Your task to perform on an android device: remove spam from my inbox in the gmail app Image 0: 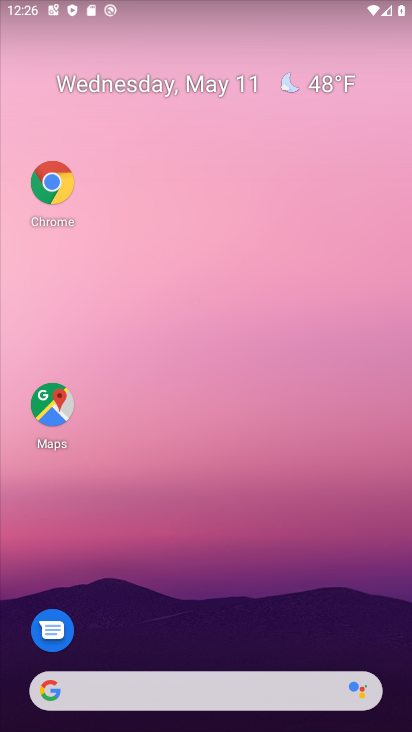
Step 0: drag from (267, 668) to (136, 6)
Your task to perform on an android device: remove spam from my inbox in the gmail app Image 1: 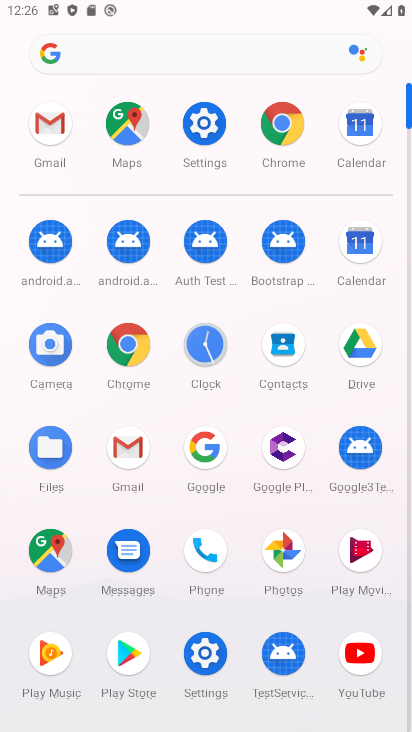
Step 1: click (123, 443)
Your task to perform on an android device: remove spam from my inbox in the gmail app Image 2: 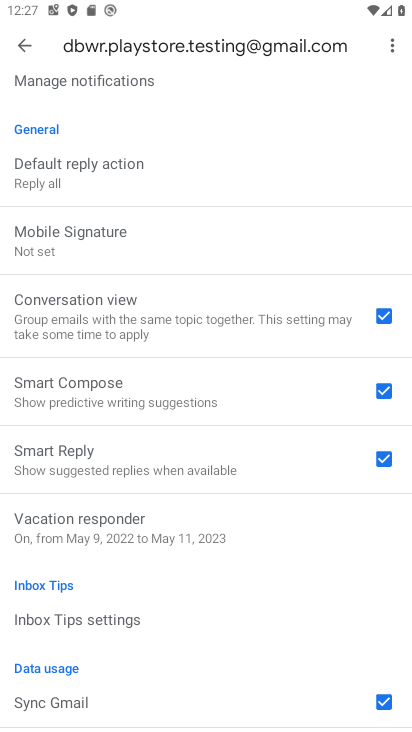
Step 2: click (22, 47)
Your task to perform on an android device: remove spam from my inbox in the gmail app Image 3: 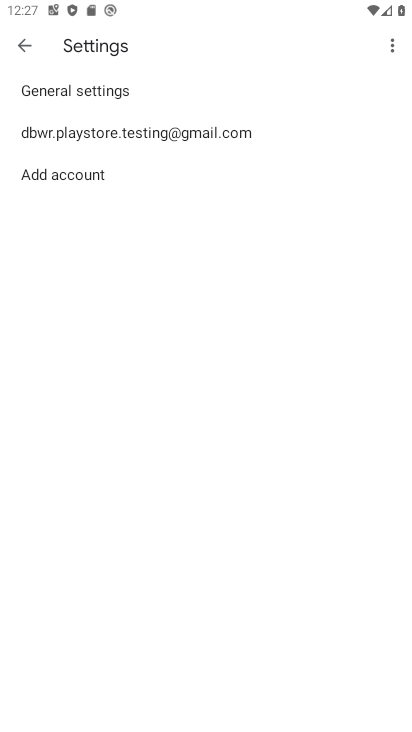
Step 3: click (23, 43)
Your task to perform on an android device: remove spam from my inbox in the gmail app Image 4: 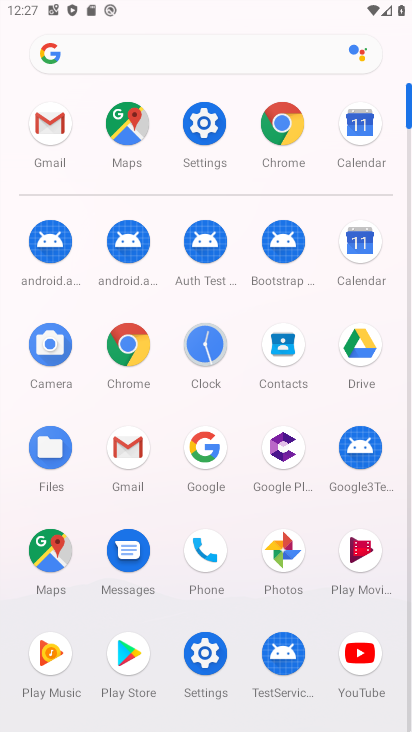
Step 4: click (115, 453)
Your task to perform on an android device: remove spam from my inbox in the gmail app Image 5: 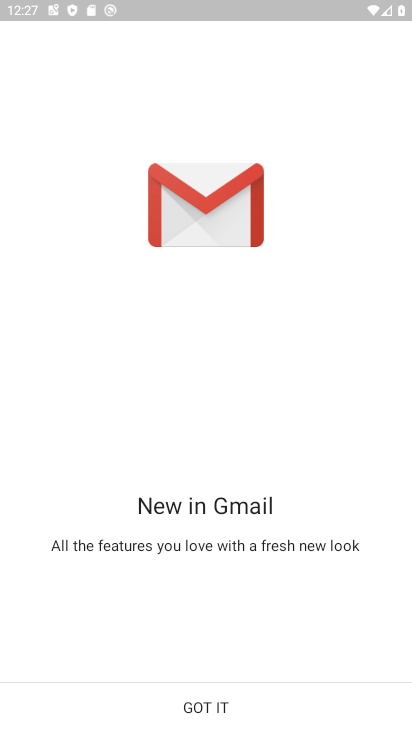
Step 5: click (215, 720)
Your task to perform on an android device: remove spam from my inbox in the gmail app Image 6: 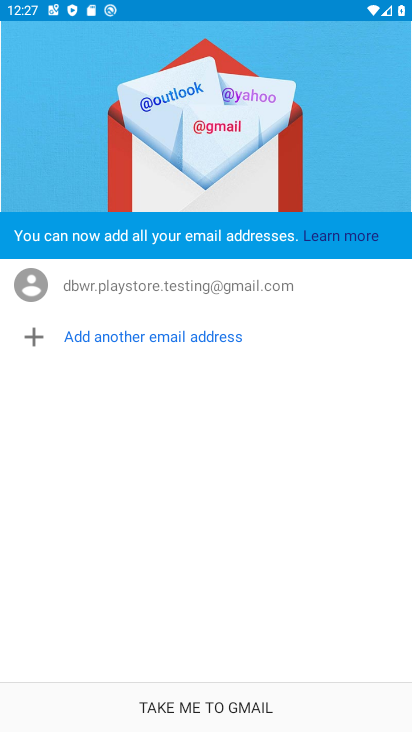
Step 6: click (213, 711)
Your task to perform on an android device: remove spam from my inbox in the gmail app Image 7: 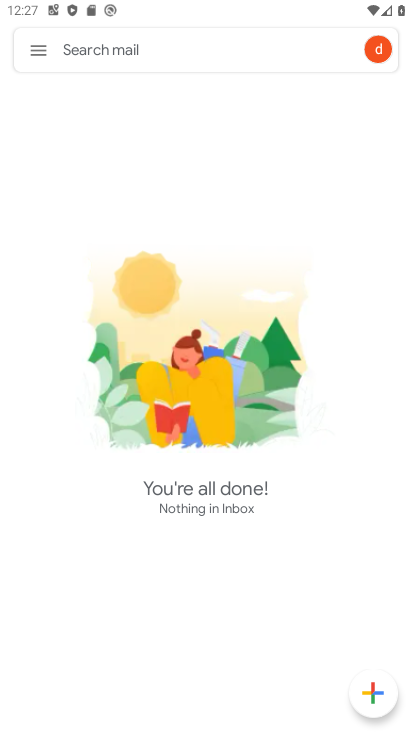
Step 7: click (24, 45)
Your task to perform on an android device: remove spam from my inbox in the gmail app Image 8: 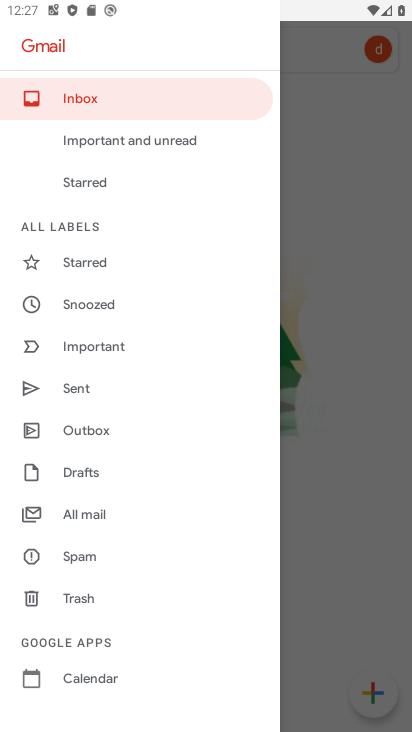
Step 8: click (93, 555)
Your task to perform on an android device: remove spam from my inbox in the gmail app Image 9: 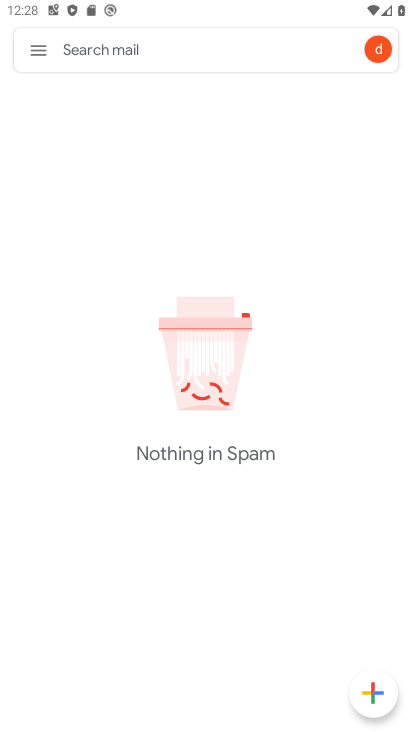
Step 9: press home button
Your task to perform on an android device: remove spam from my inbox in the gmail app Image 10: 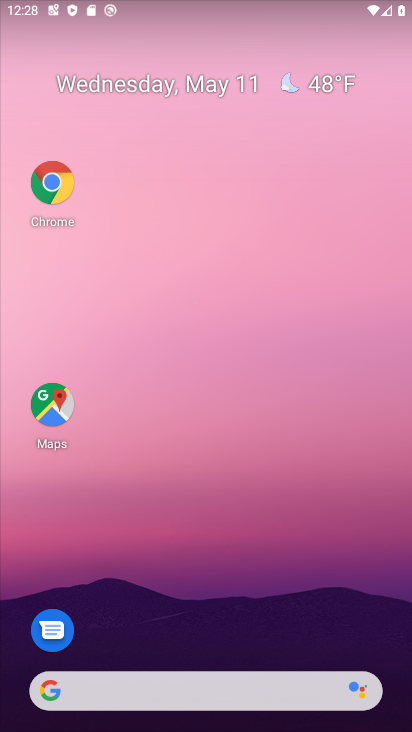
Step 10: drag from (190, 669) to (23, 95)
Your task to perform on an android device: remove spam from my inbox in the gmail app Image 11: 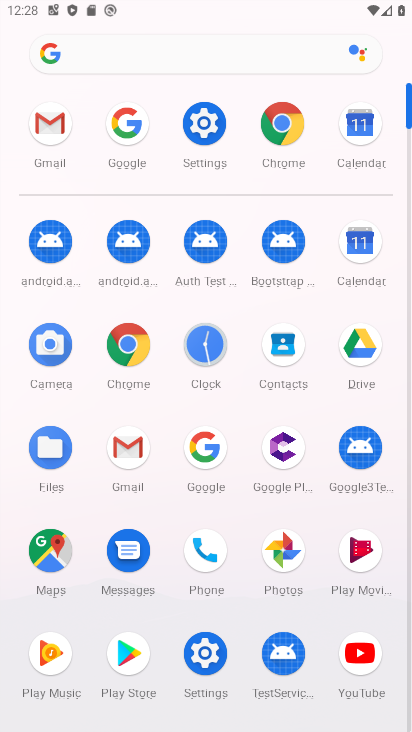
Step 11: click (135, 448)
Your task to perform on an android device: remove spam from my inbox in the gmail app Image 12: 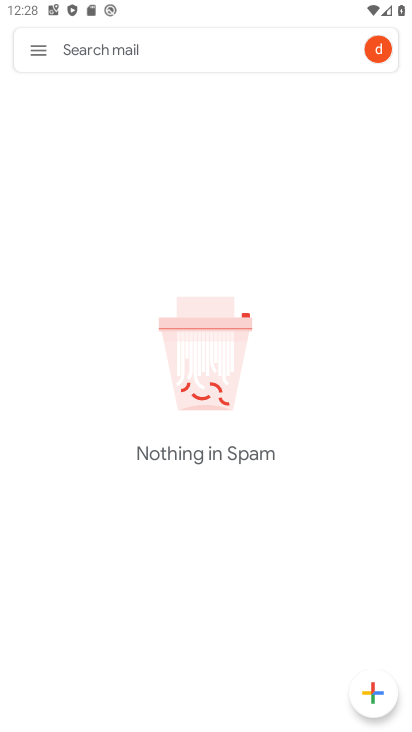
Step 12: click (42, 39)
Your task to perform on an android device: remove spam from my inbox in the gmail app Image 13: 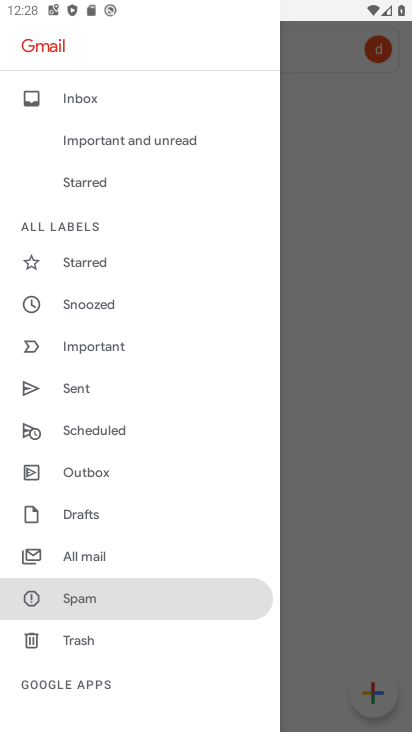
Step 13: click (92, 594)
Your task to perform on an android device: remove spam from my inbox in the gmail app Image 14: 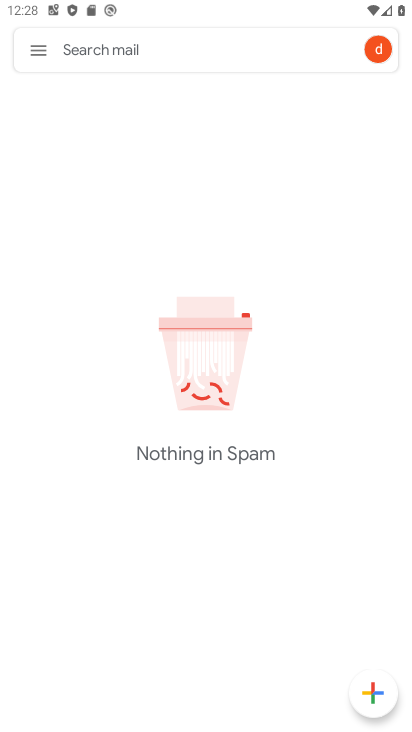
Step 14: task complete